Your task to perform on an android device: Go to wifi settings Image 0: 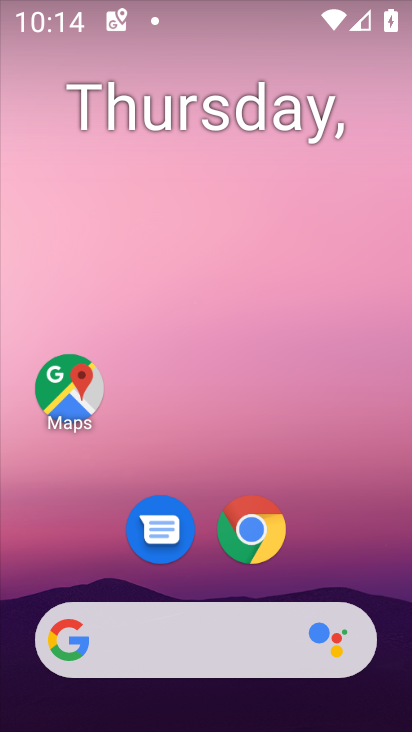
Step 0: drag from (311, 565) to (276, 6)
Your task to perform on an android device: Go to wifi settings Image 1: 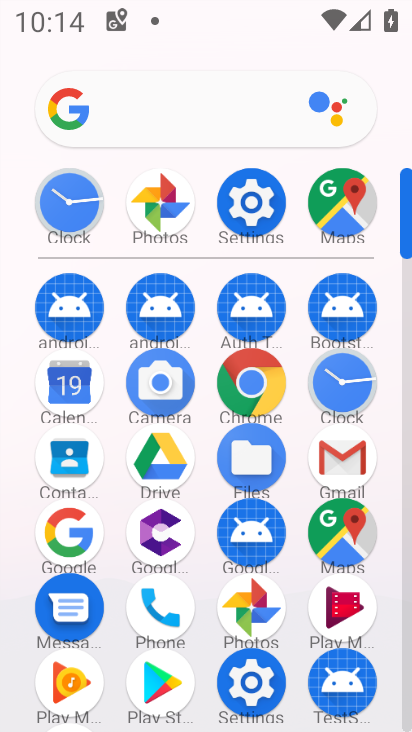
Step 1: click (253, 199)
Your task to perform on an android device: Go to wifi settings Image 2: 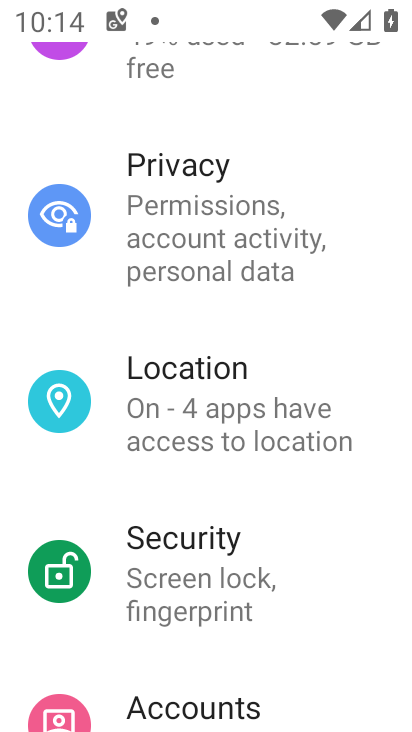
Step 2: drag from (223, 228) to (208, 481)
Your task to perform on an android device: Go to wifi settings Image 3: 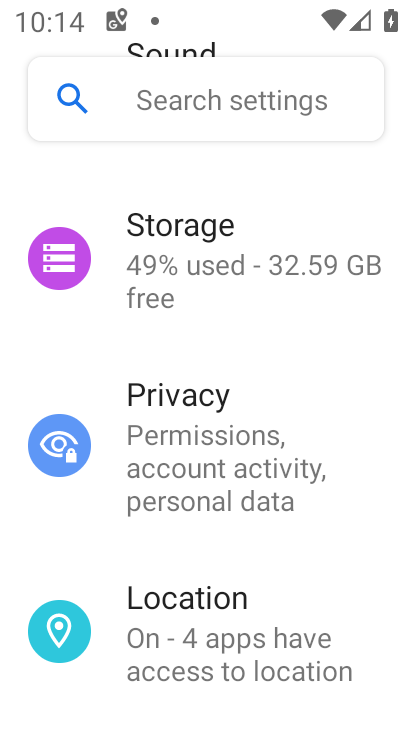
Step 3: drag from (202, 298) to (167, 482)
Your task to perform on an android device: Go to wifi settings Image 4: 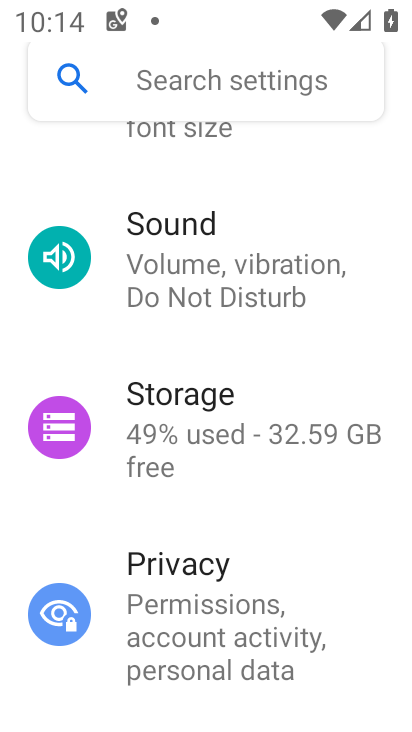
Step 4: drag from (169, 330) to (186, 478)
Your task to perform on an android device: Go to wifi settings Image 5: 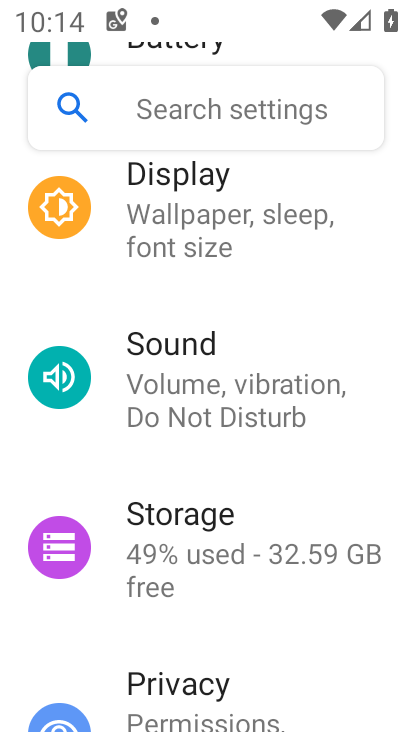
Step 5: drag from (129, 291) to (135, 475)
Your task to perform on an android device: Go to wifi settings Image 6: 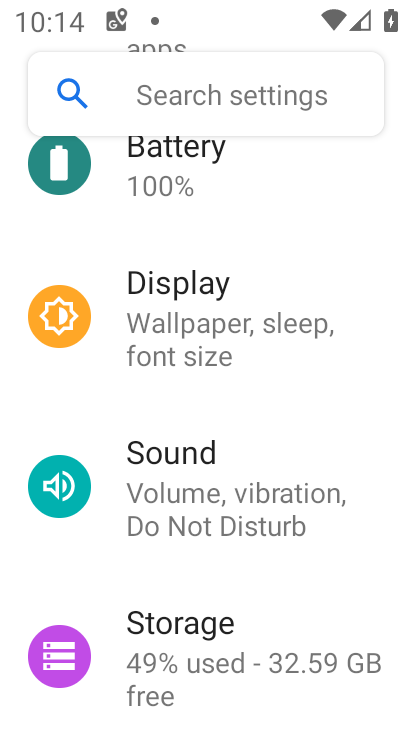
Step 6: drag from (193, 264) to (236, 442)
Your task to perform on an android device: Go to wifi settings Image 7: 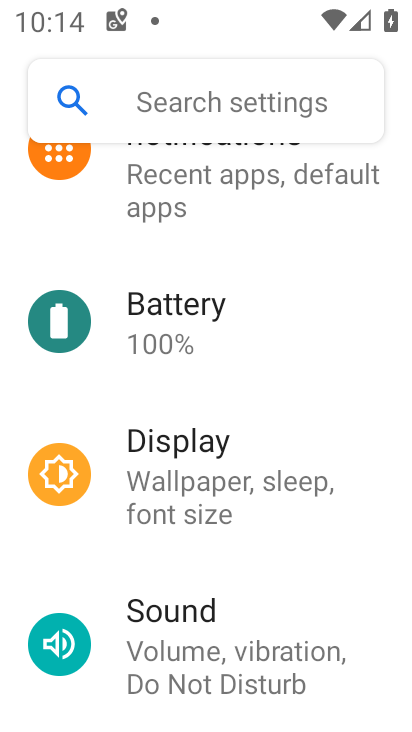
Step 7: drag from (267, 198) to (263, 476)
Your task to perform on an android device: Go to wifi settings Image 8: 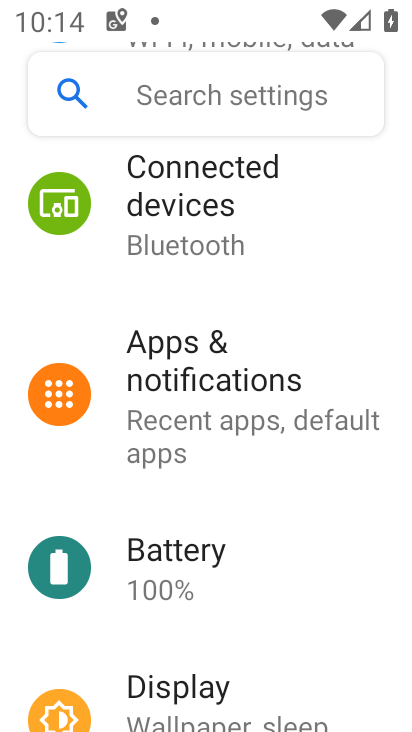
Step 8: drag from (304, 267) to (286, 509)
Your task to perform on an android device: Go to wifi settings Image 9: 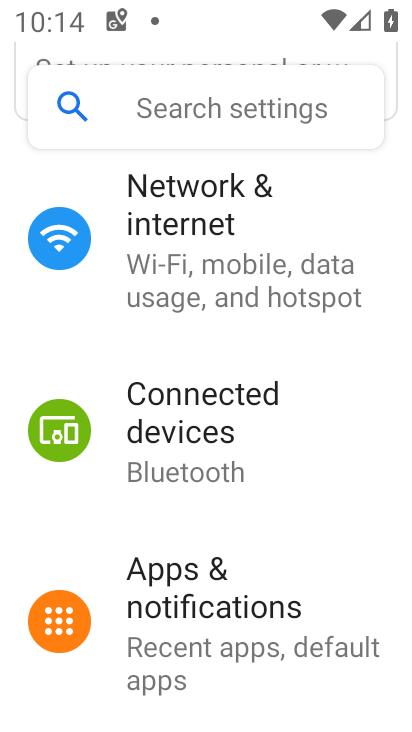
Step 9: click (227, 286)
Your task to perform on an android device: Go to wifi settings Image 10: 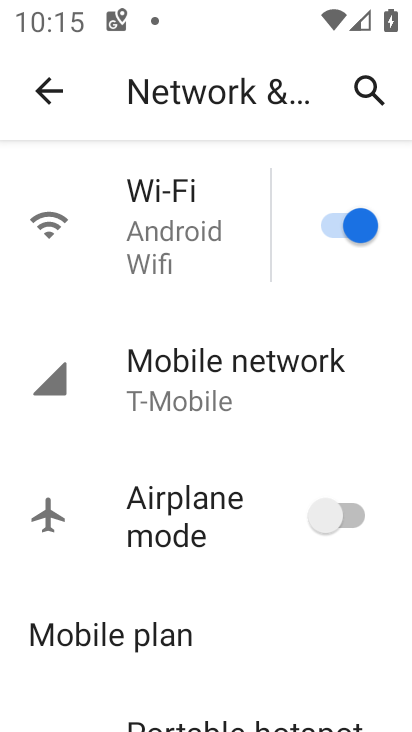
Step 10: click (151, 230)
Your task to perform on an android device: Go to wifi settings Image 11: 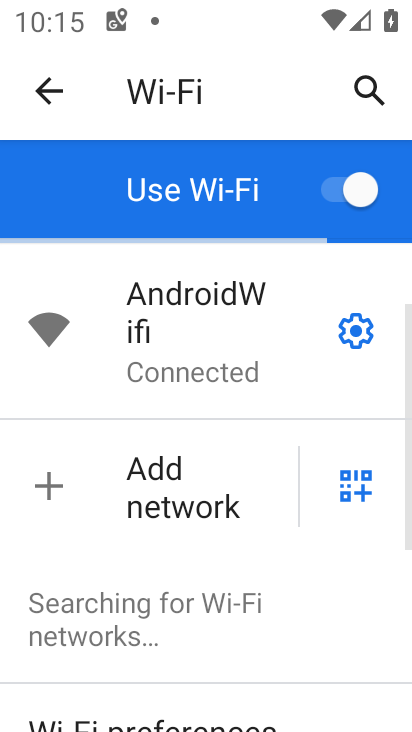
Step 11: task complete